Your task to perform on an android device: turn on showing notifications on the lock screen Image 0: 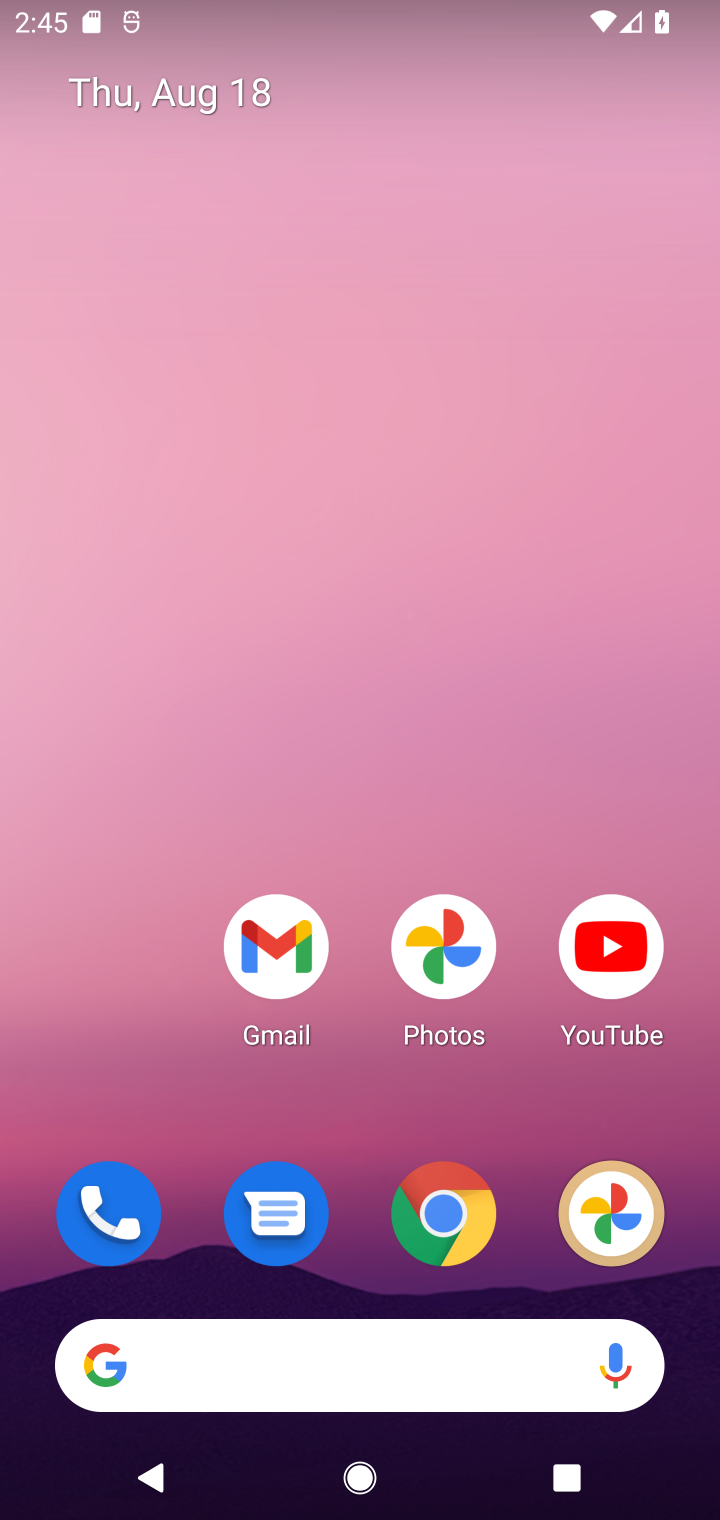
Step 0: press home button
Your task to perform on an android device: turn on showing notifications on the lock screen Image 1: 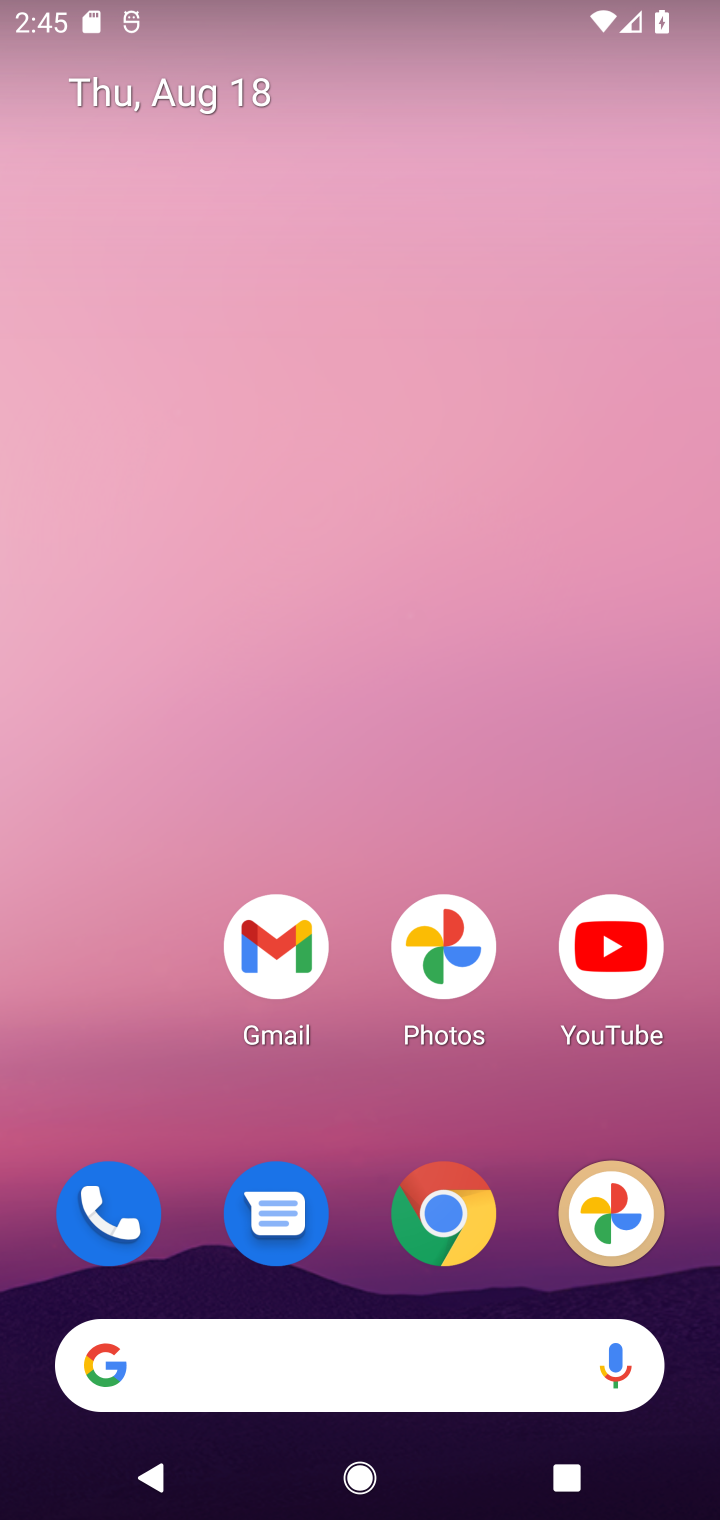
Step 1: drag from (194, 574) to (409, 4)
Your task to perform on an android device: turn on showing notifications on the lock screen Image 2: 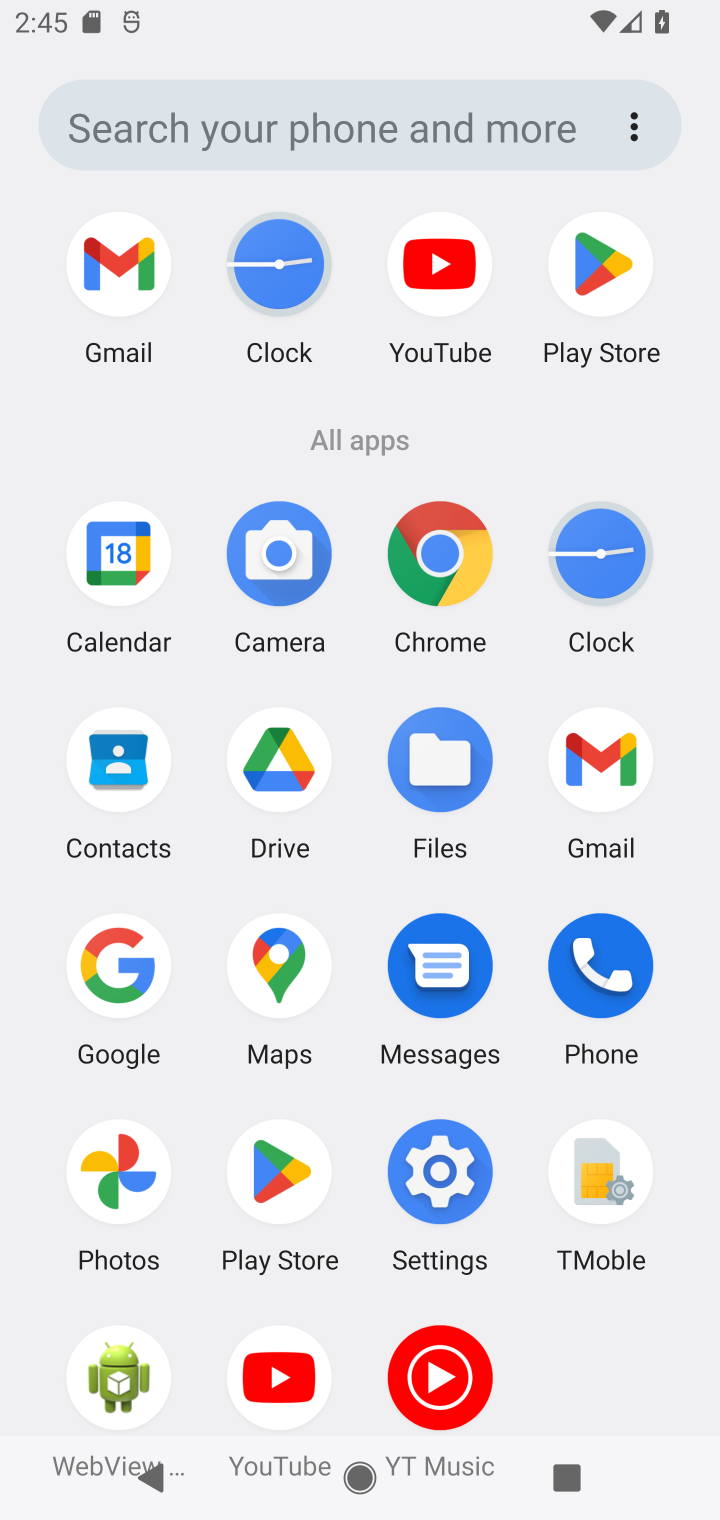
Step 2: click (437, 1178)
Your task to perform on an android device: turn on showing notifications on the lock screen Image 3: 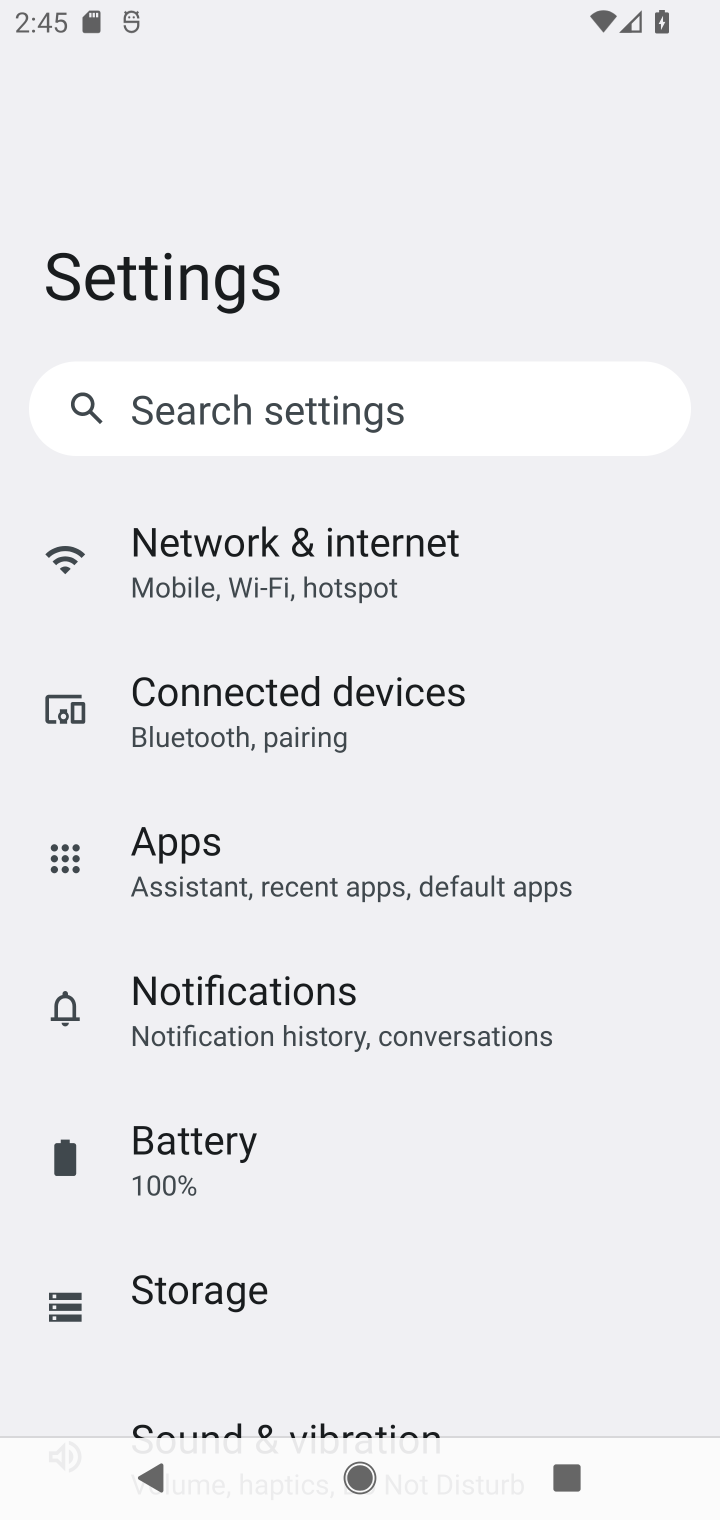
Step 3: click (300, 1011)
Your task to perform on an android device: turn on showing notifications on the lock screen Image 4: 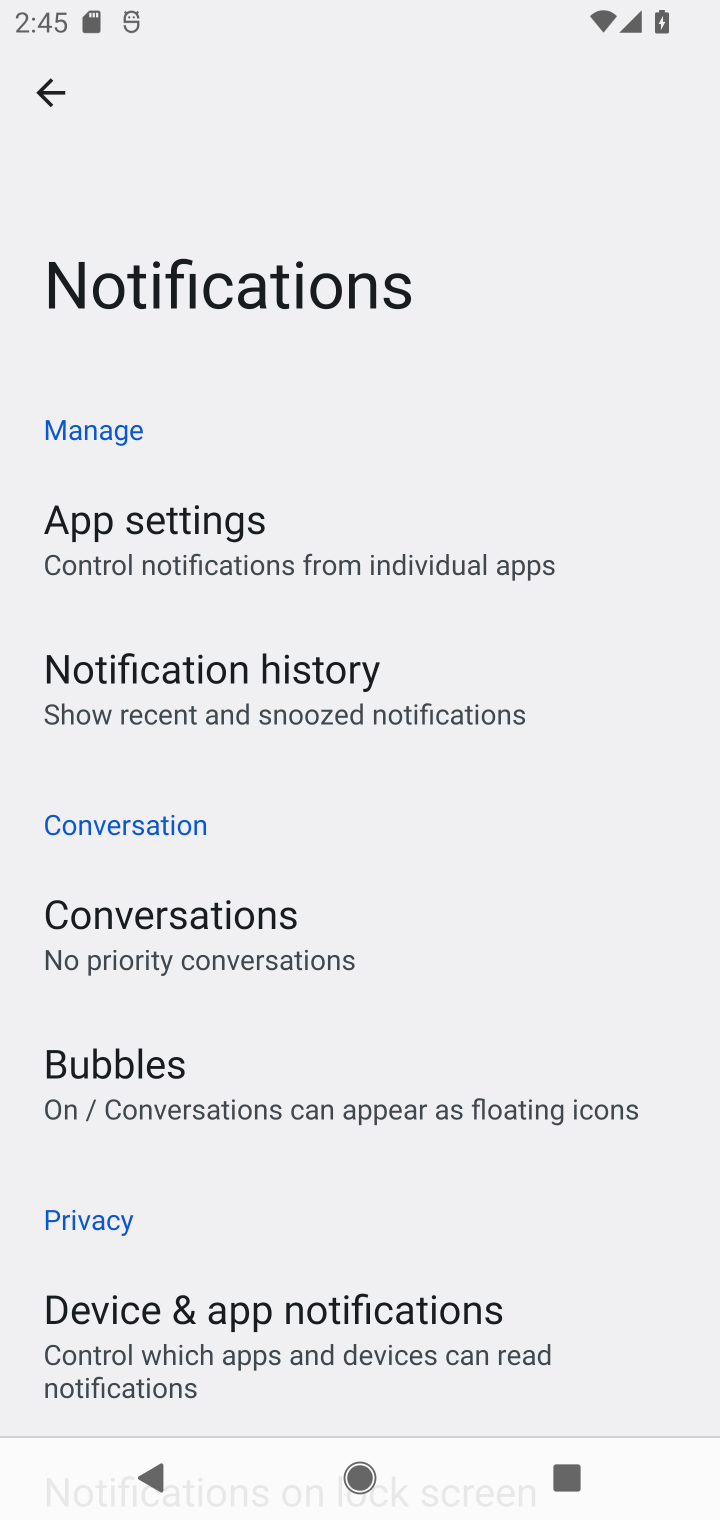
Step 4: drag from (182, 1236) to (189, 926)
Your task to perform on an android device: turn on showing notifications on the lock screen Image 5: 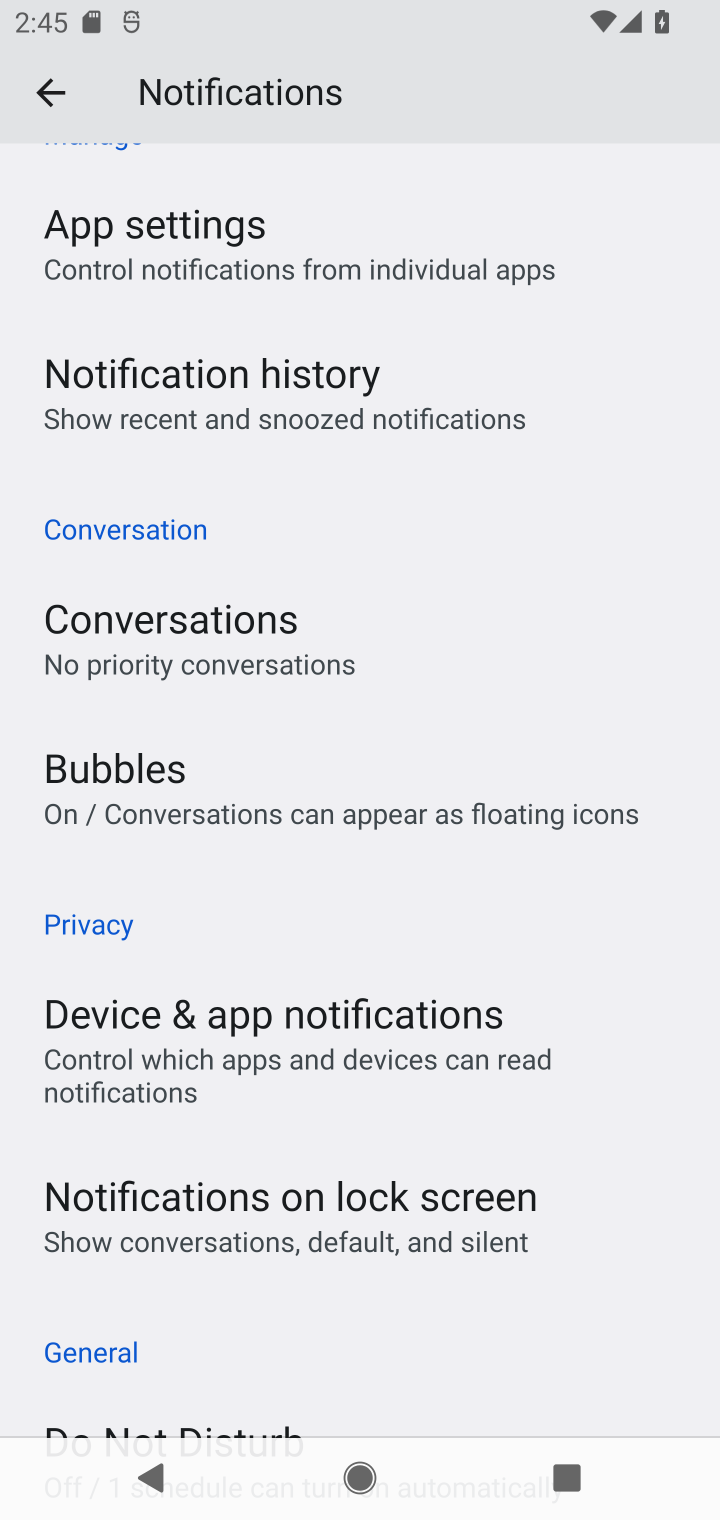
Step 5: click (196, 1225)
Your task to perform on an android device: turn on showing notifications on the lock screen Image 6: 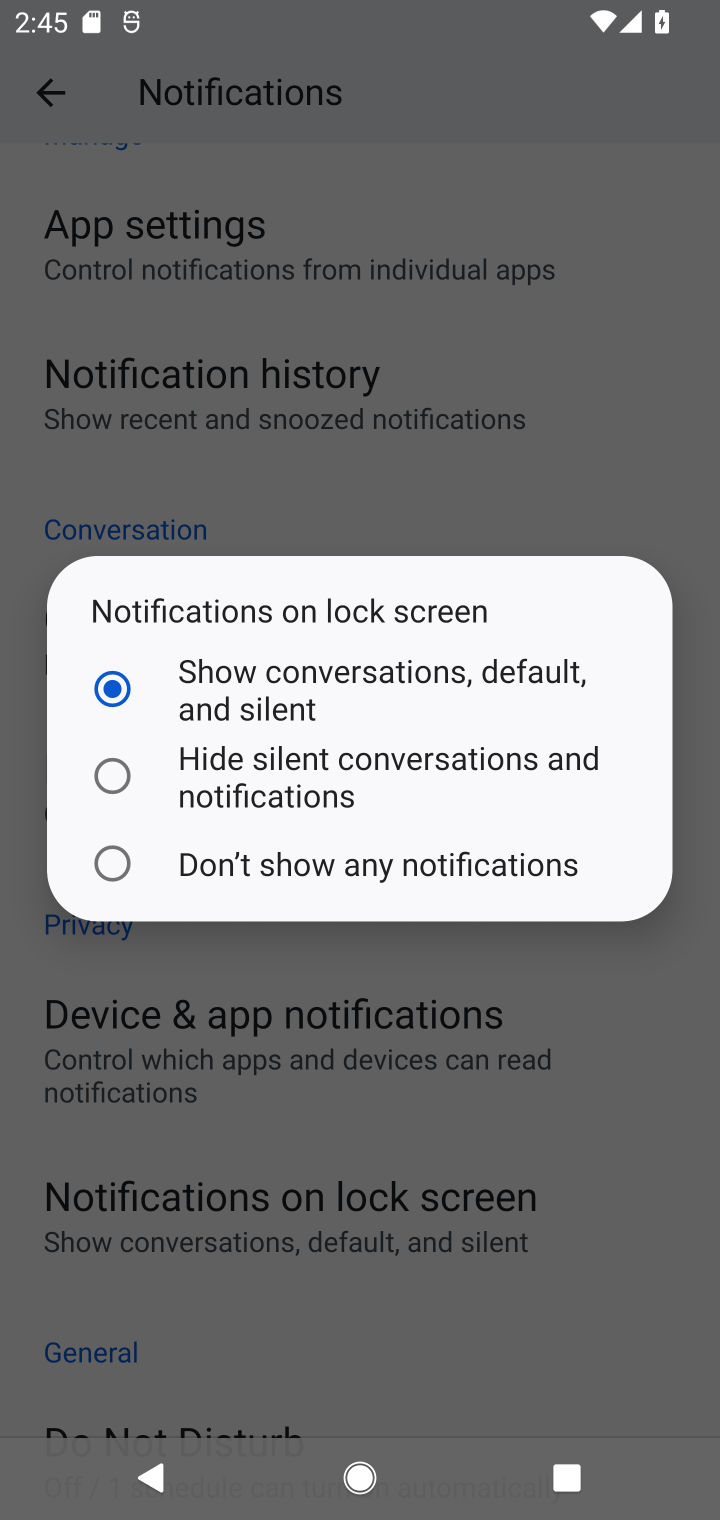
Step 6: task complete